Your task to perform on an android device: Go to network settings Image 0: 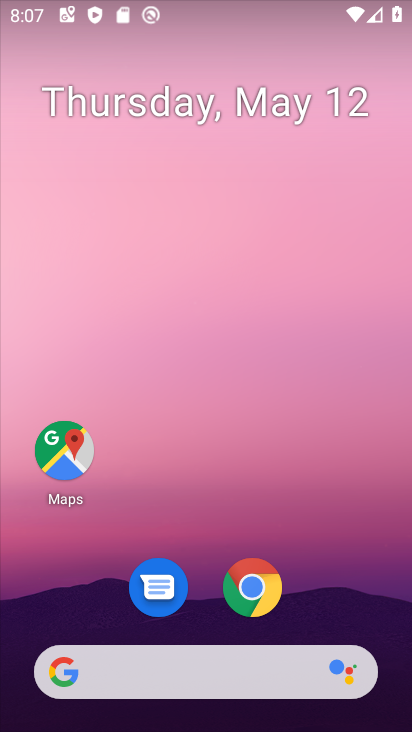
Step 0: drag from (317, 654) to (250, 181)
Your task to perform on an android device: Go to network settings Image 1: 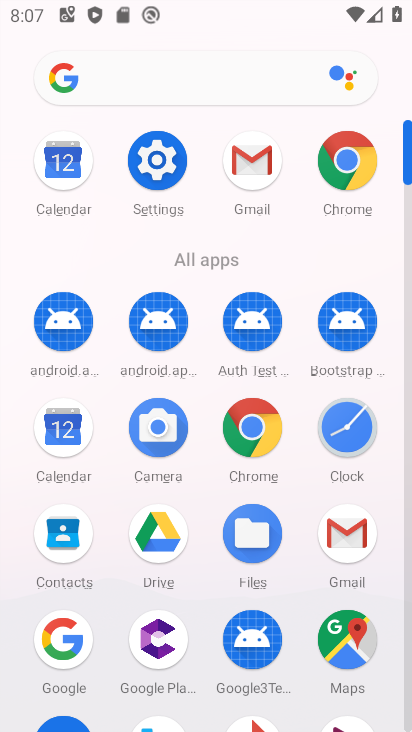
Step 1: click (159, 162)
Your task to perform on an android device: Go to network settings Image 2: 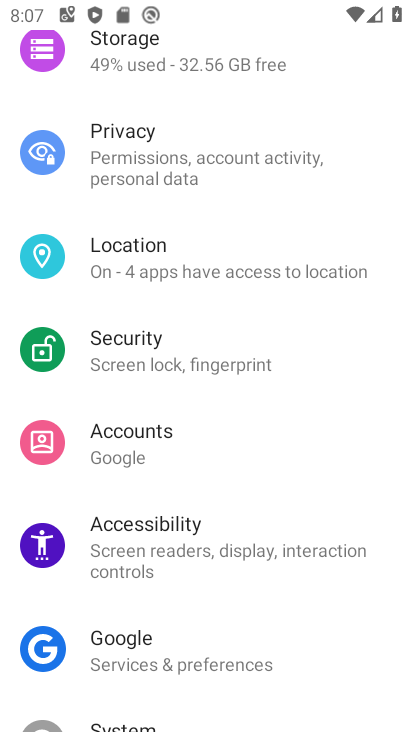
Step 2: drag from (156, 133) to (216, 651)
Your task to perform on an android device: Go to network settings Image 3: 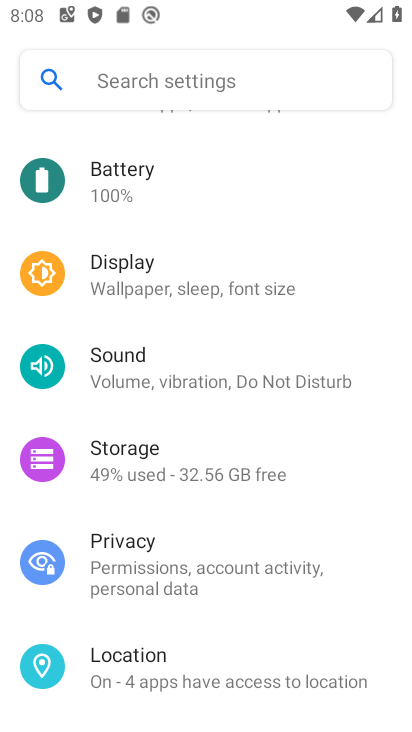
Step 3: drag from (241, 241) to (285, 650)
Your task to perform on an android device: Go to network settings Image 4: 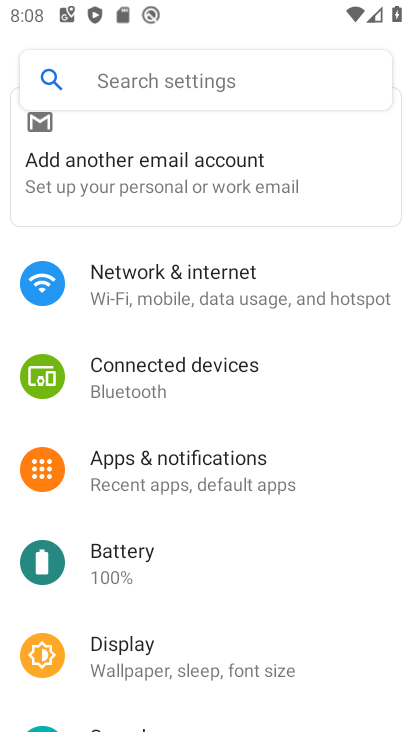
Step 4: click (188, 286)
Your task to perform on an android device: Go to network settings Image 5: 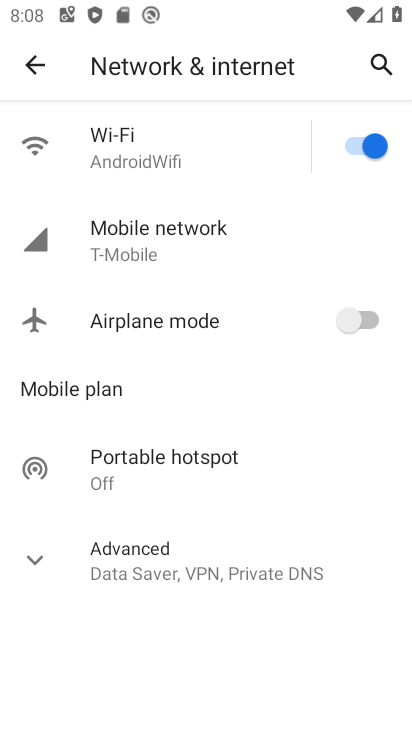
Step 5: task complete